Your task to perform on an android device: Check the news Image 0: 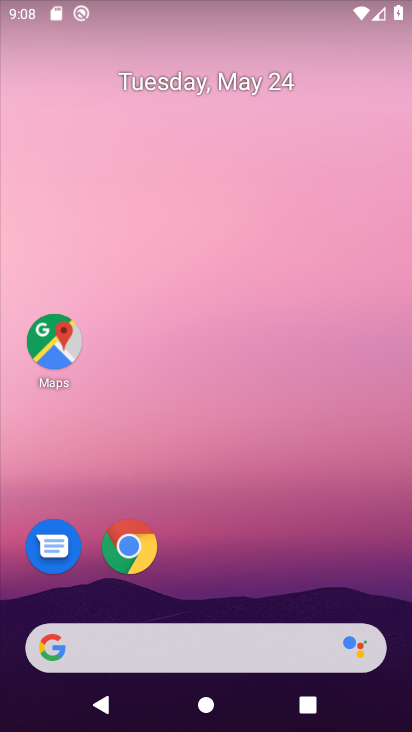
Step 0: drag from (399, 560) to (307, 135)
Your task to perform on an android device: Check the news Image 1: 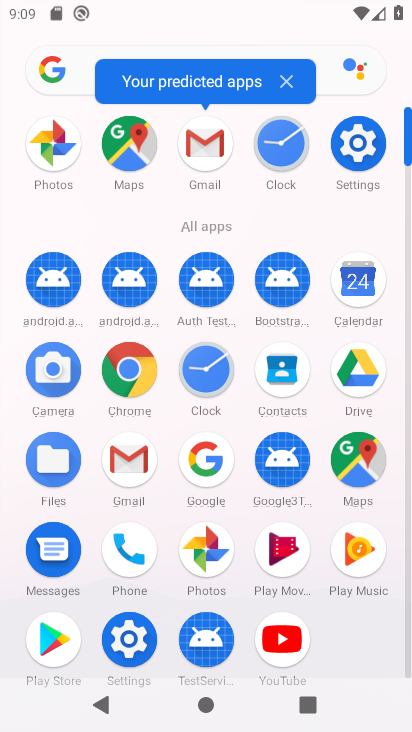
Step 1: click (105, 400)
Your task to perform on an android device: Check the news Image 2: 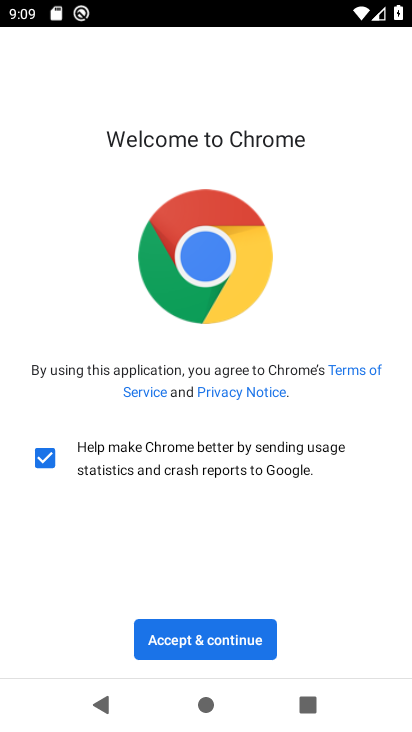
Step 2: click (188, 657)
Your task to perform on an android device: Check the news Image 3: 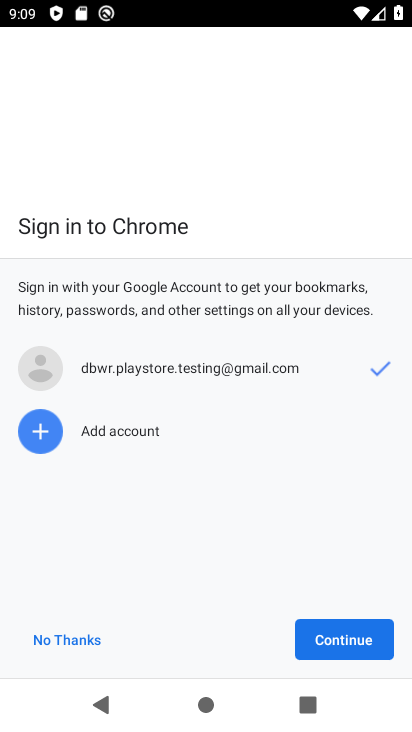
Step 3: click (336, 652)
Your task to perform on an android device: Check the news Image 4: 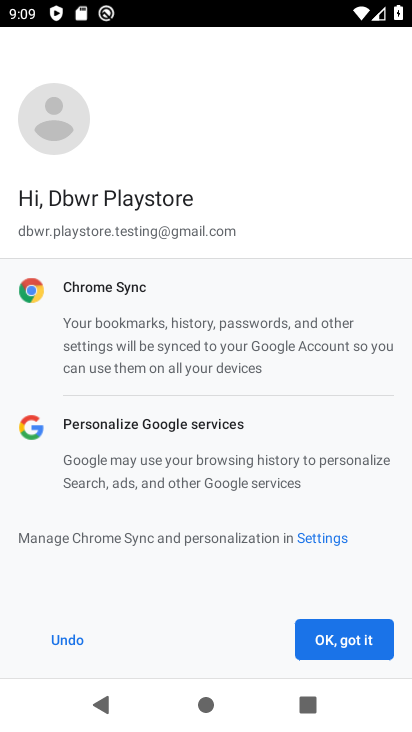
Step 4: click (350, 647)
Your task to perform on an android device: Check the news Image 5: 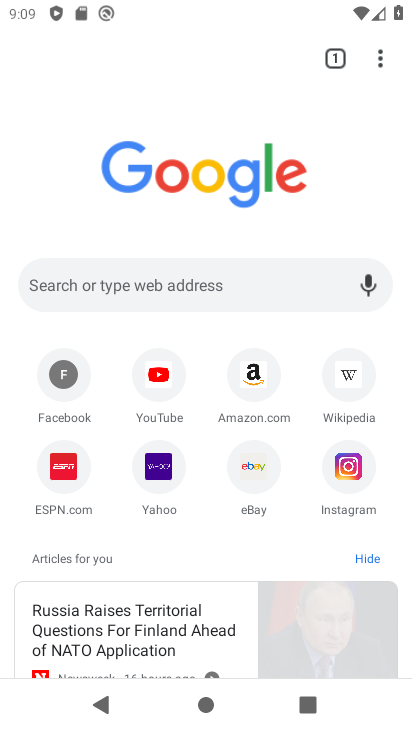
Step 5: click (166, 281)
Your task to perform on an android device: Check the news Image 6: 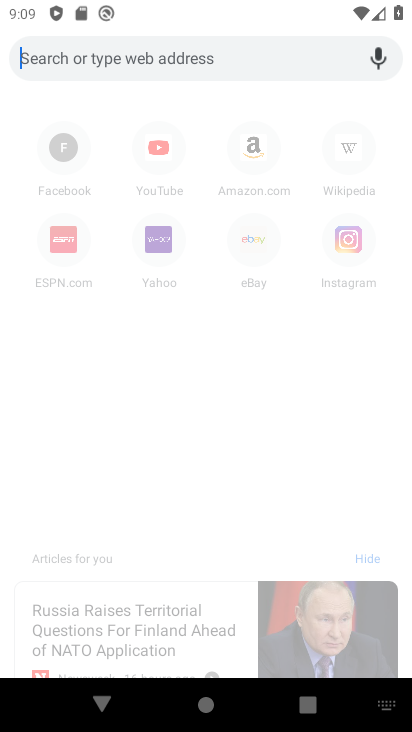
Step 6: type "check the news"
Your task to perform on an android device: Check the news Image 7: 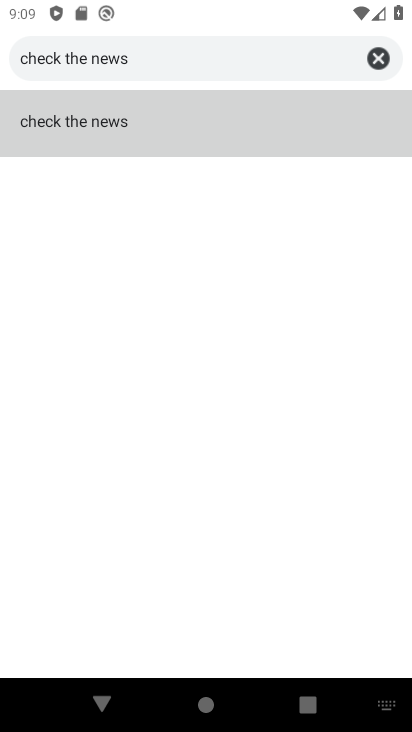
Step 7: click (43, 125)
Your task to perform on an android device: Check the news Image 8: 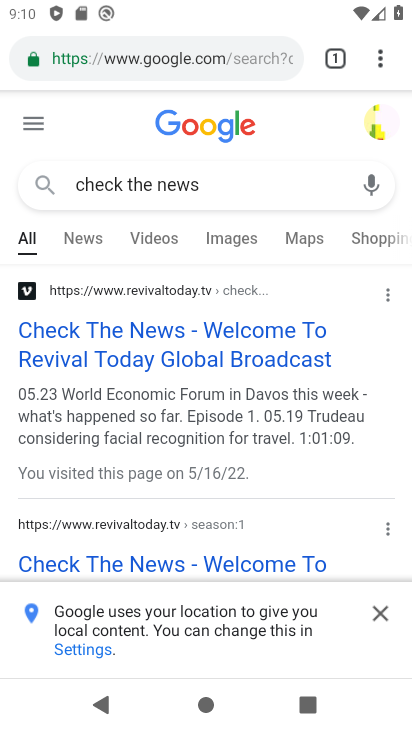
Step 8: task complete